Your task to perform on an android device: find snoozed emails in the gmail app Image 0: 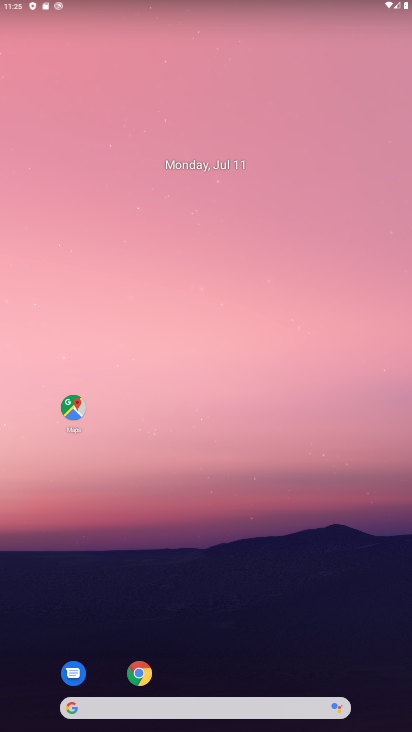
Step 0: drag from (254, 701) to (255, 264)
Your task to perform on an android device: find snoozed emails in the gmail app Image 1: 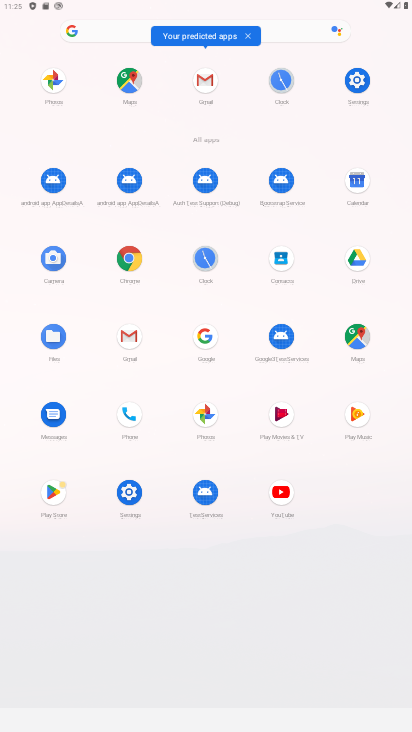
Step 1: click (204, 76)
Your task to perform on an android device: find snoozed emails in the gmail app Image 2: 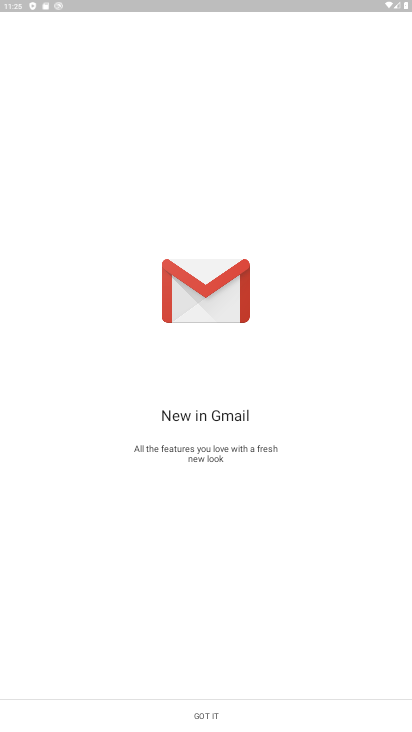
Step 2: click (215, 715)
Your task to perform on an android device: find snoozed emails in the gmail app Image 3: 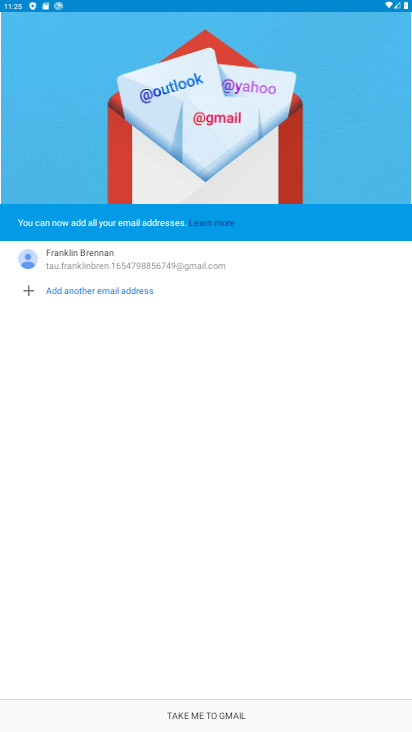
Step 3: click (217, 714)
Your task to perform on an android device: find snoozed emails in the gmail app Image 4: 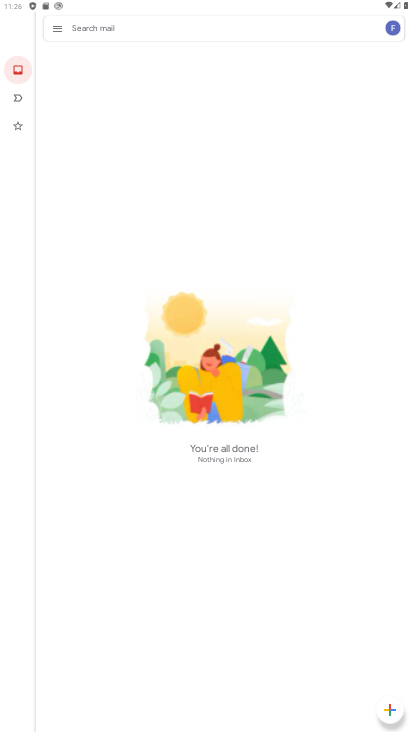
Step 4: click (60, 31)
Your task to perform on an android device: find snoozed emails in the gmail app Image 5: 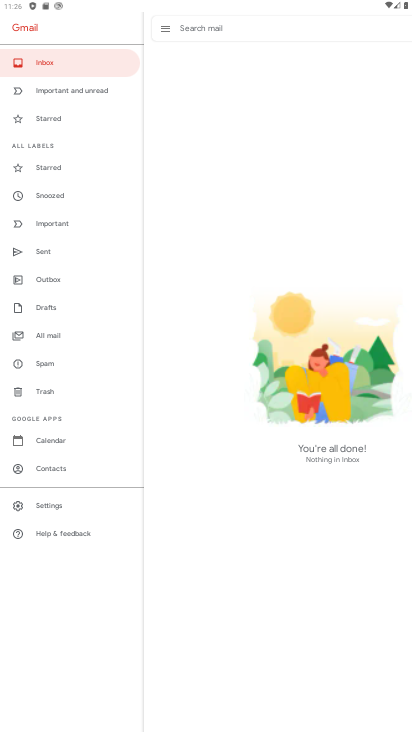
Step 5: click (45, 191)
Your task to perform on an android device: find snoozed emails in the gmail app Image 6: 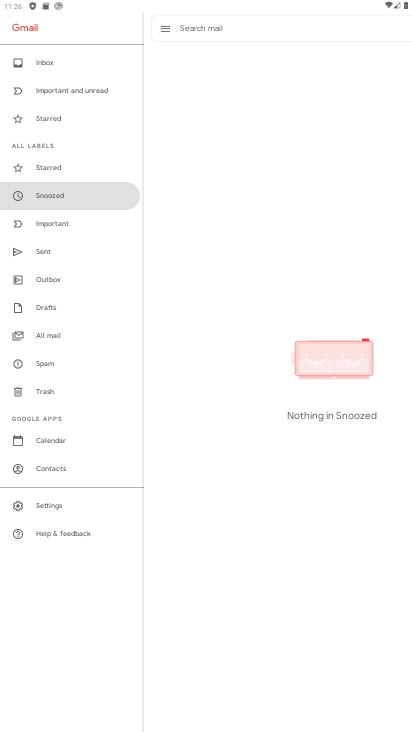
Step 6: task complete